Your task to perform on an android device: Go to display settings Image 0: 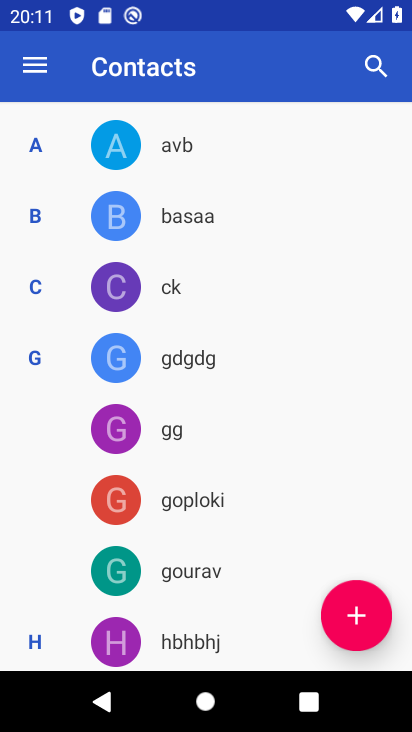
Step 0: press home button
Your task to perform on an android device: Go to display settings Image 1: 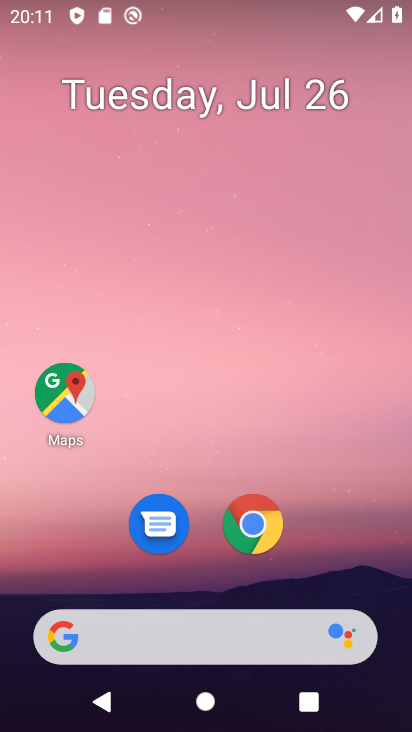
Step 1: drag from (161, 639) to (276, 38)
Your task to perform on an android device: Go to display settings Image 2: 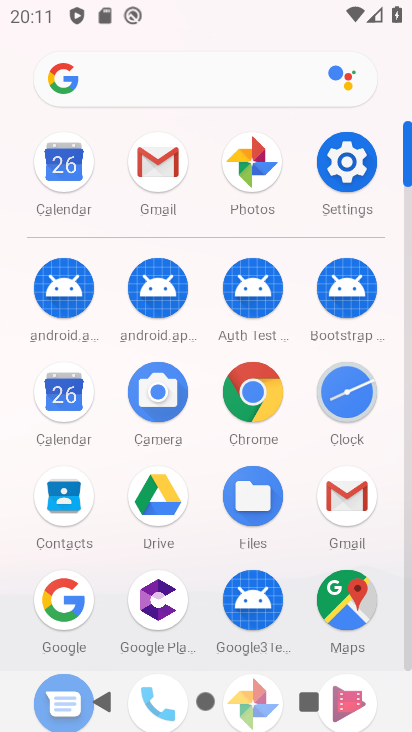
Step 2: click (349, 165)
Your task to perform on an android device: Go to display settings Image 3: 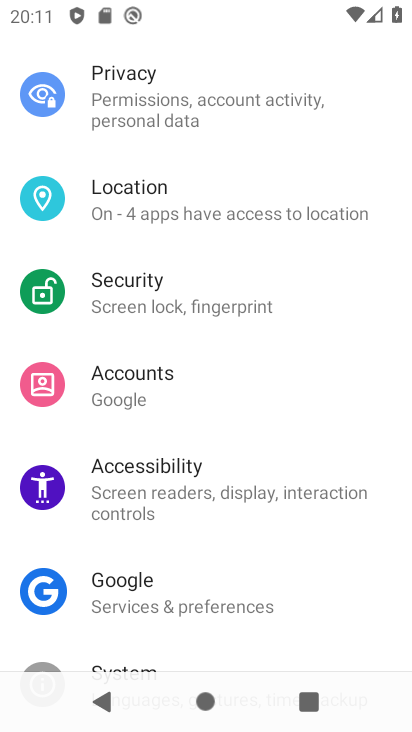
Step 3: drag from (287, 251) to (349, 601)
Your task to perform on an android device: Go to display settings Image 4: 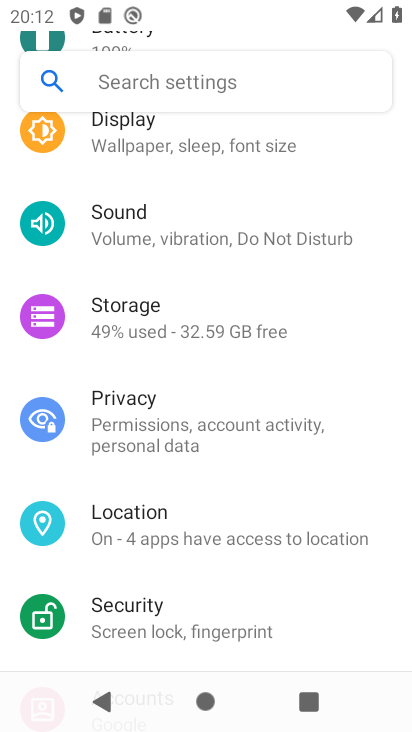
Step 4: click (144, 136)
Your task to perform on an android device: Go to display settings Image 5: 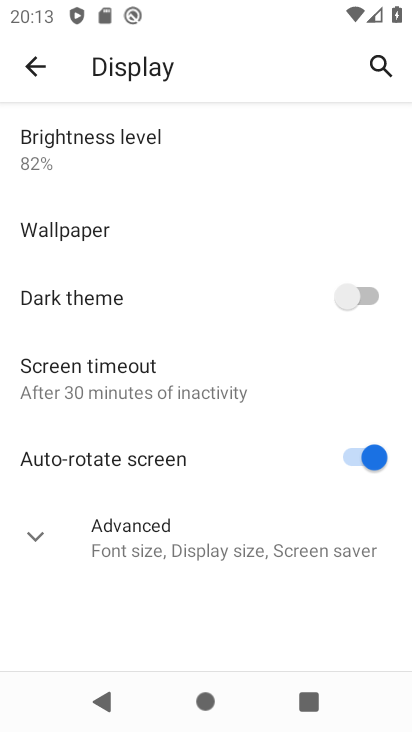
Step 5: task complete